Your task to perform on an android device: change the clock display to digital Image 0: 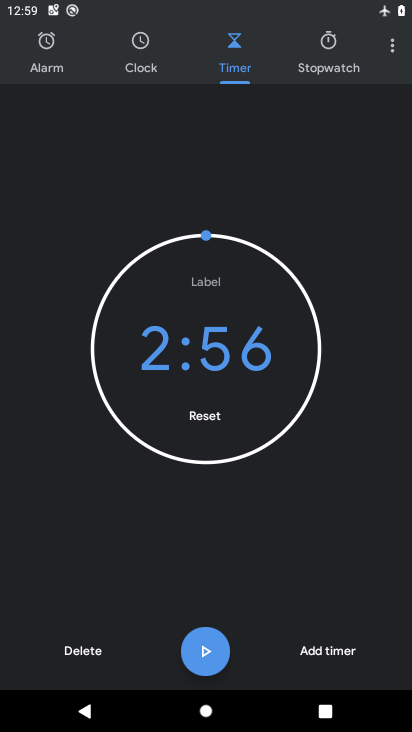
Step 0: drag from (287, 650) to (329, 533)
Your task to perform on an android device: change the clock display to digital Image 1: 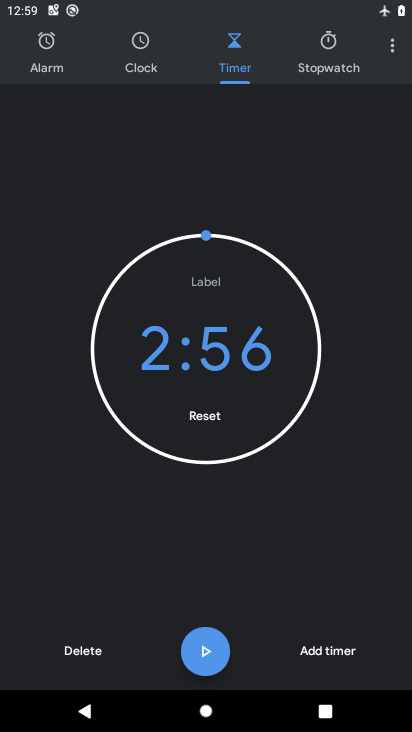
Step 1: drag from (254, 592) to (357, 432)
Your task to perform on an android device: change the clock display to digital Image 2: 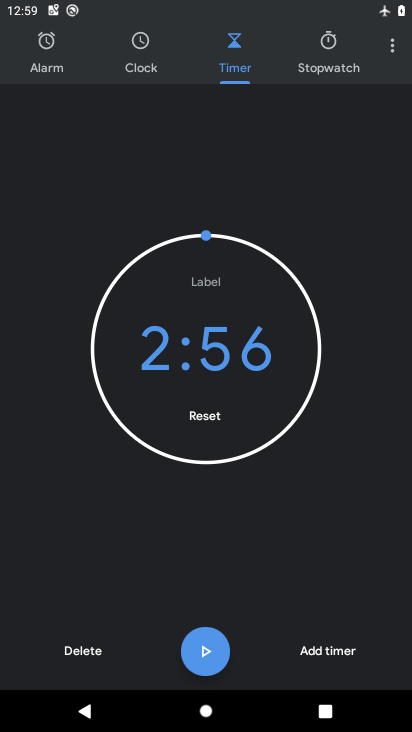
Step 2: click (338, 497)
Your task to perform on an android device: change the clock display to digital Image 3: 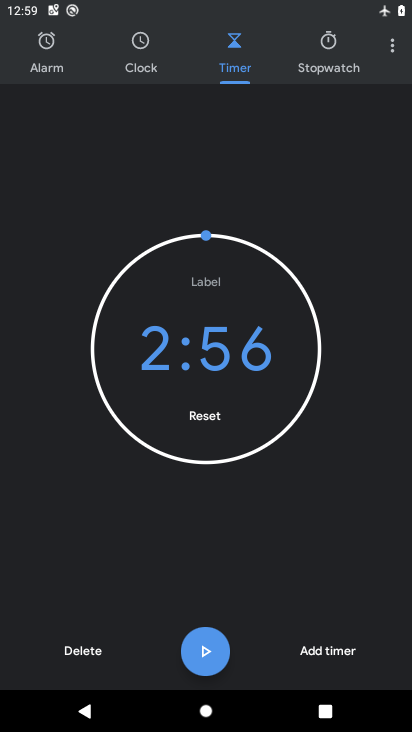
Step 3: click (383, 68)
Your task to perform on an android device: change the clock display to digital Image 4: 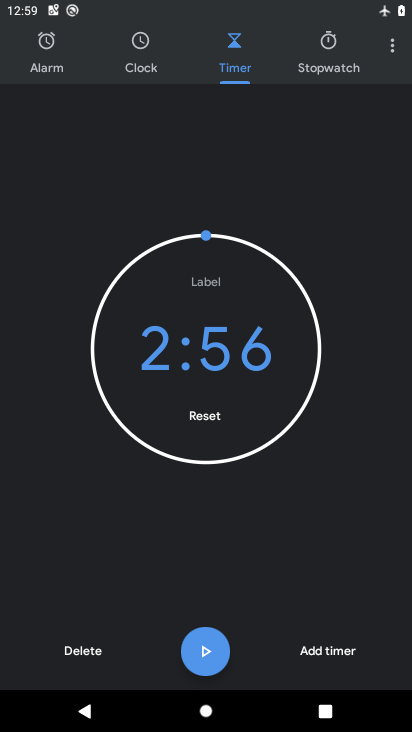
Step 4: click (385, 65)
Your task to perform on an android device: change the clock display to digital Image 5: 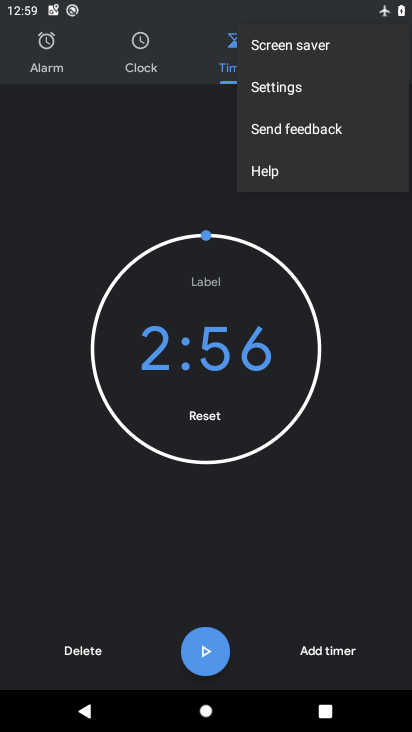
Step 5: click (330, 69)
Your task to perform on an android device: change the clock display to digital Image 6: 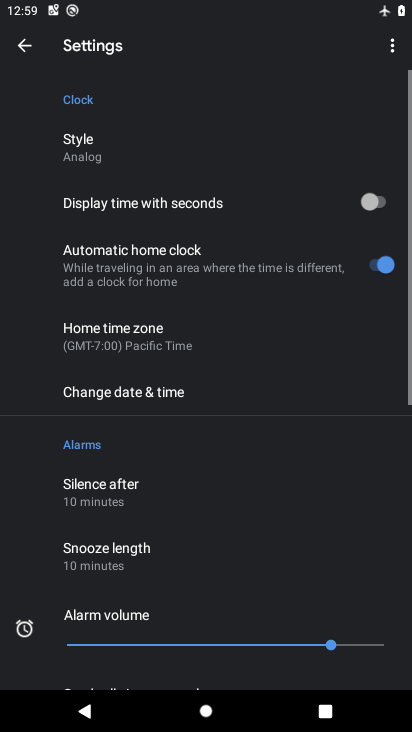
Step 6: click (106, 136)
Your task to perform on an android device: change the clock display to digital Image 7: 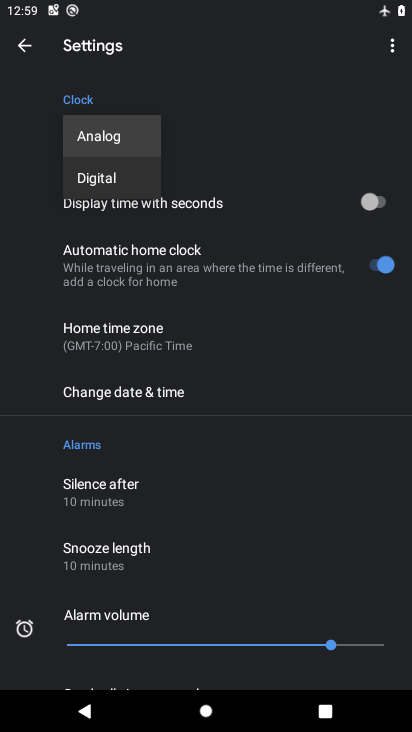
Step 7: click (124, 119)
Your task to perform on an android device: change the clock display to digital Image 8: 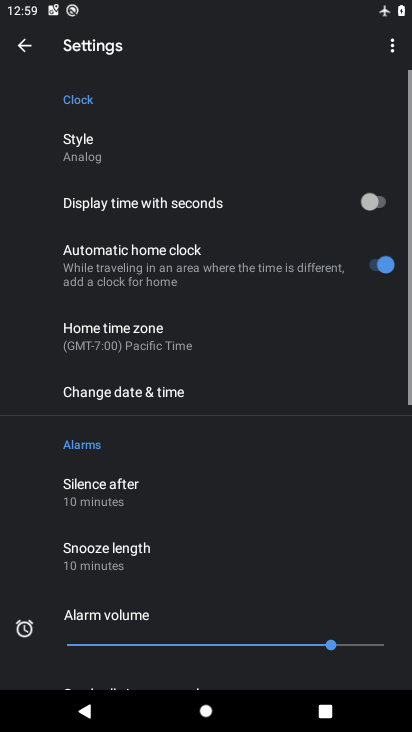
Step 8: click (106, 183)
Your task to perform on an android device: change the clock display to digital Image 9: 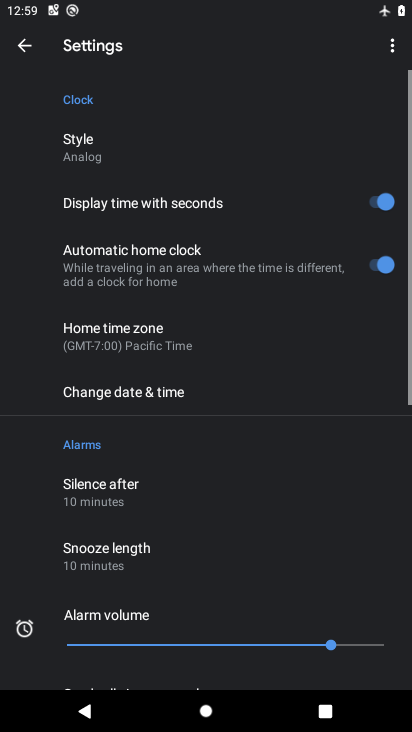
Step 9: click (108, 157)
Your task to perform on an android device: change the clock display to digital Image 10: 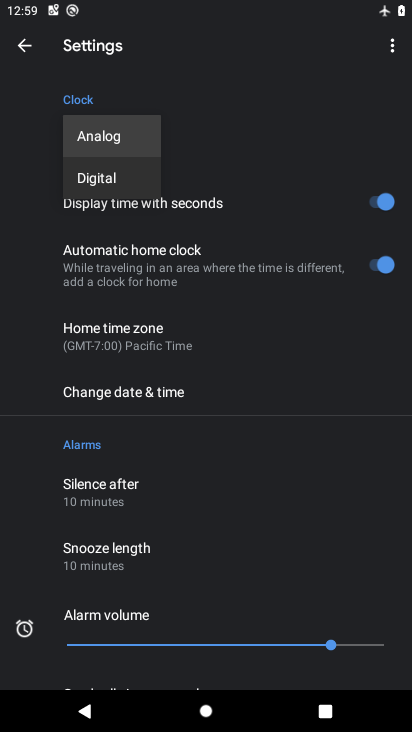
Step 10: click (96, 175)
Your task to perform on an android device: change the clock display to digital Image 11: 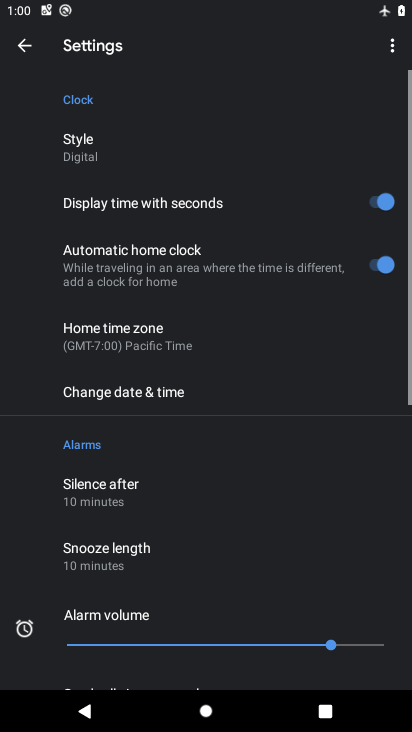
Step 11: task complete